Your task to perform on an android device: open chrome and create a bookmark for the current page Image 0: 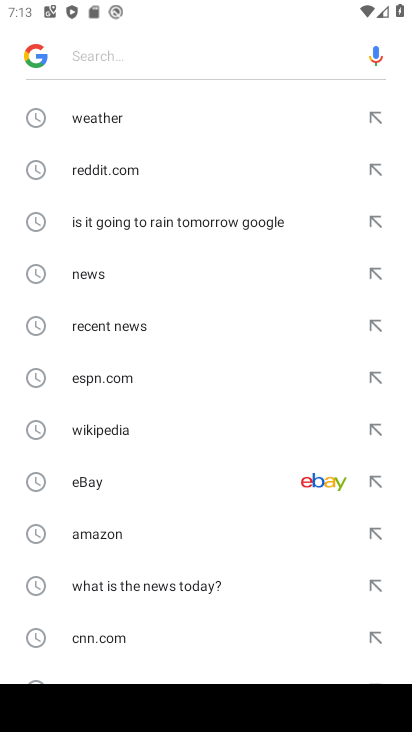
Step 0: press home button
Your task to perform on an android device: open chrome and create a bookmark for the current page Image 1: 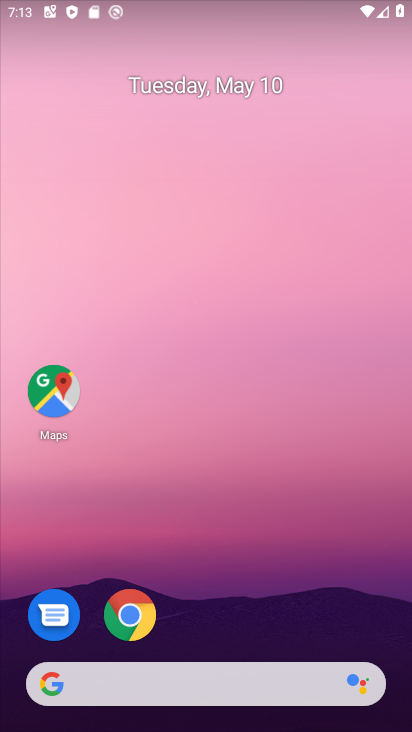
Step 1: click (131, 617)
Your task to perform on an android device: open chrome and create a bookmark for the current page Image 2: 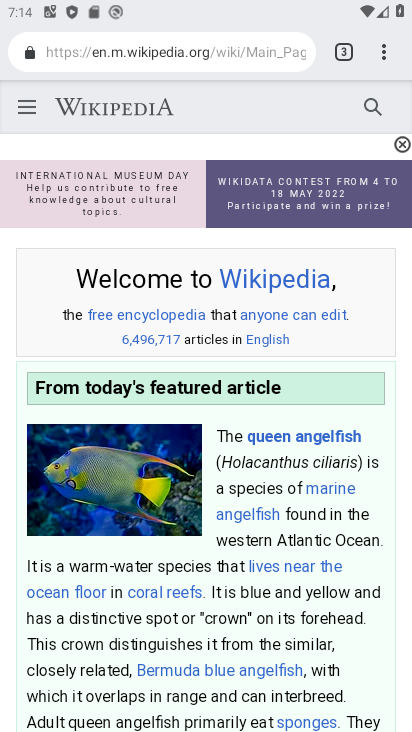
Step 2: click (383, 50)
Your task to perform on an android device: open chrome and create a bookmark for the current page Image 3: 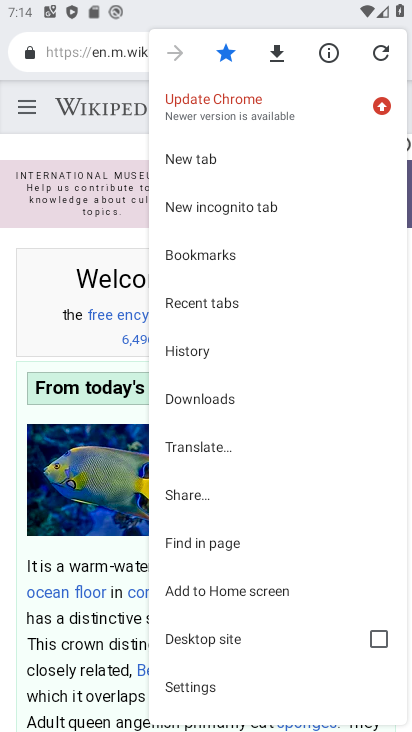
Step 3: task complete